Your task to perform on an android device: check data usage Image 0: 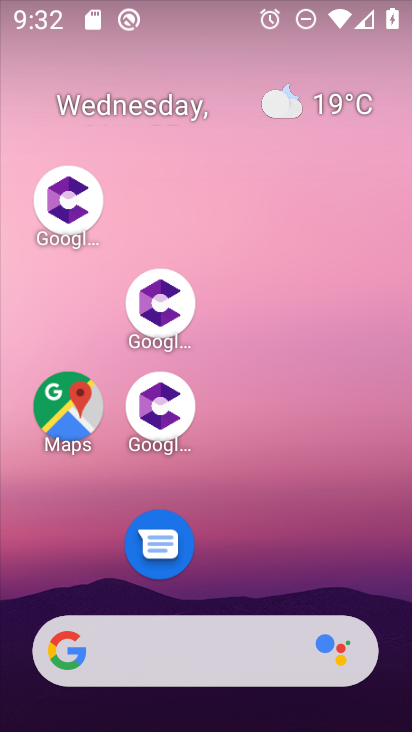
Step 0: drag from (305, 522) to (188, 50)
Your task to perform on an android device: check data usage Image 1: 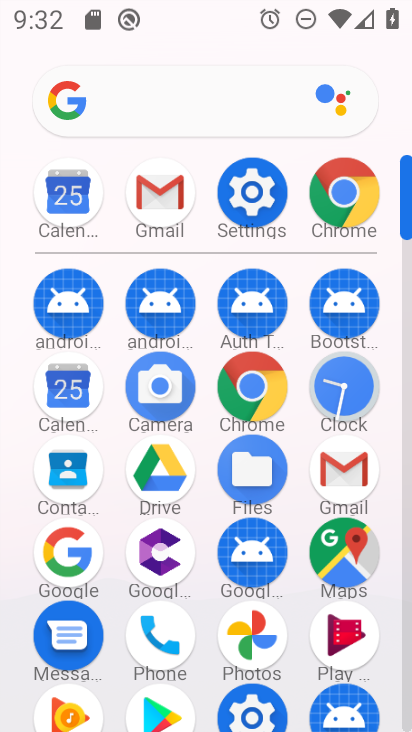
Step 1: click (253, 196)
Your task to perform on an android device: check data usage Image 2: 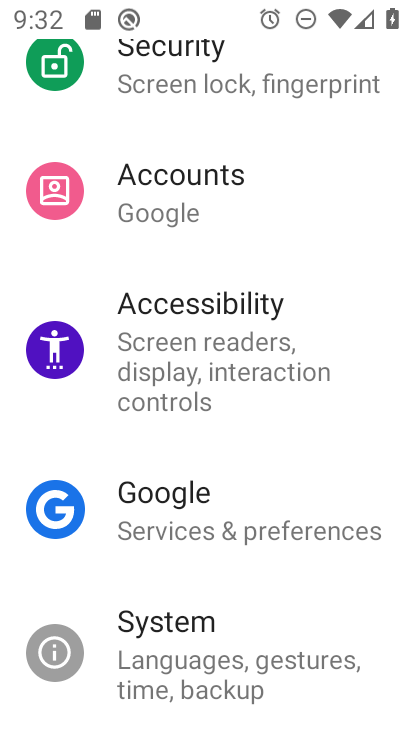
Step 2: drag from (228, 131) to (263, 711)
Your task to perform on an android device: check data usage Image 3: 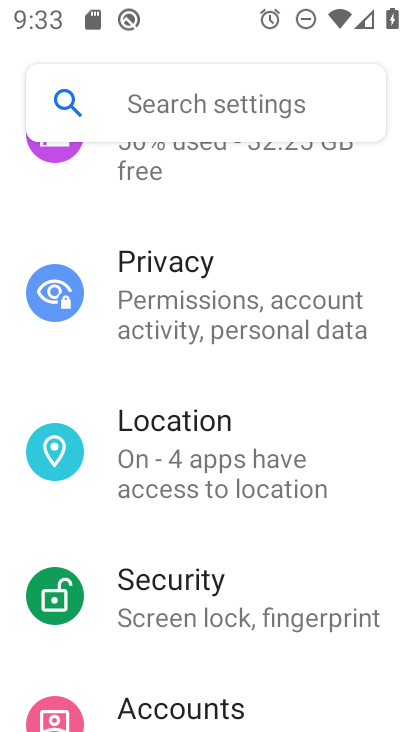
Step 3: drag from (222, 218) to (236, 560)
Your task to perform on an android device: check data usage Image 4: 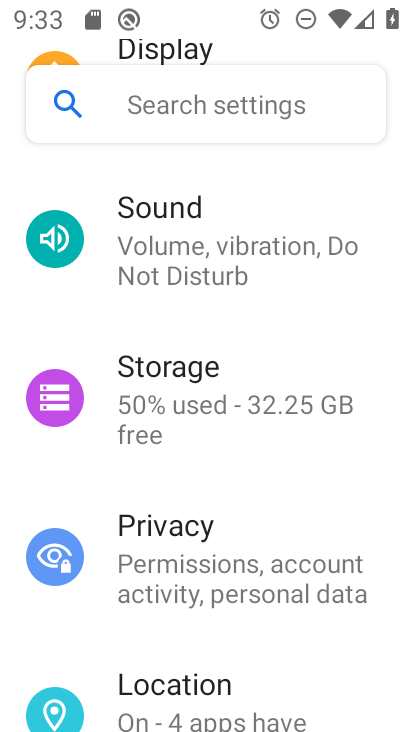
Step 4: drag from (188, 322) to (204, 652)
Your task to perform on an android device: check data usage Image 5: 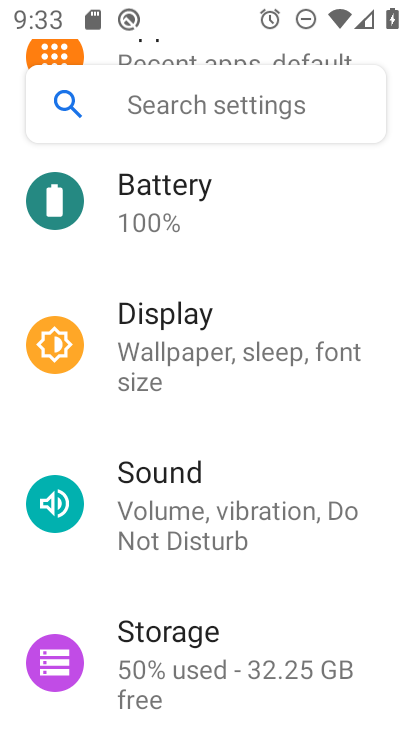
Step 5: drag from (204, 246) to (220, 546)
Your task to perform on an android device: check data usage Image 6: 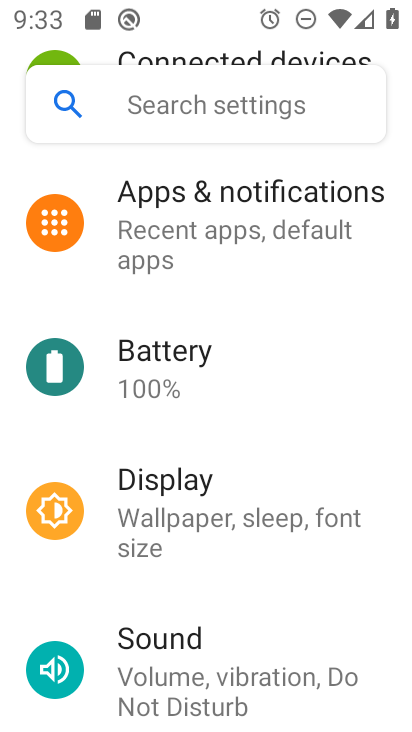
Step 6: drag from (203, 290) to (284, 712)
Your task to perform on an android device: check data usage Image 7: 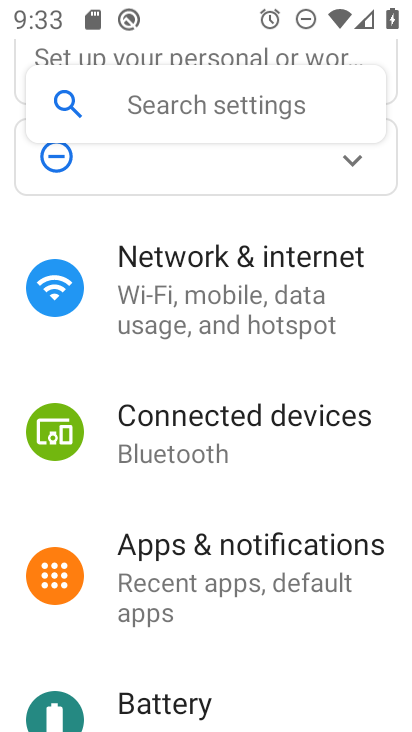
Step 7: click (186, 271)
Your task to perform on an android device: check data usage Image 8: 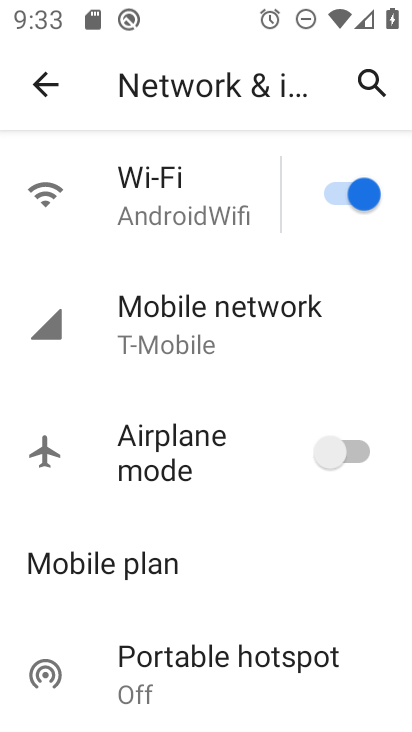
Step 8: click (208, 308)
Your task to perform on an android device: check data usage Image 9: 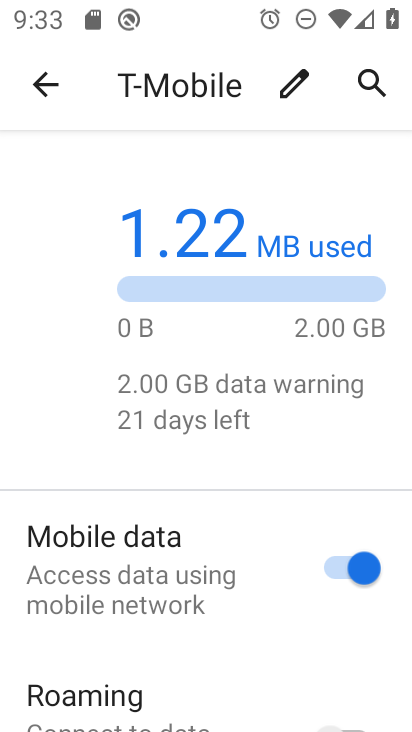
Step 9: task complete